Your task to perform on an android device: change notification settings in the gmail app Image 0: 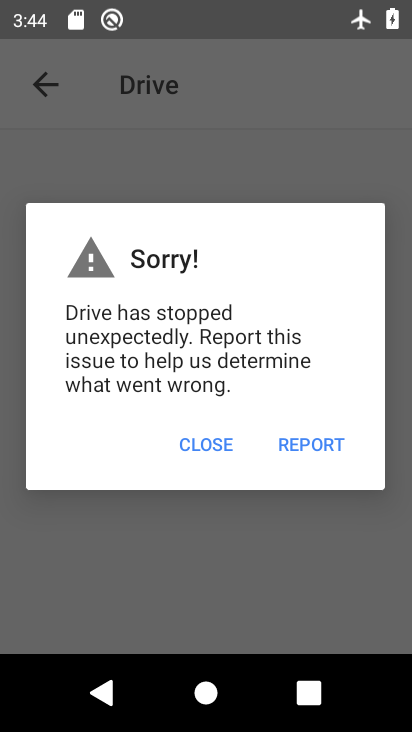
Step 0: press home button
Your task to perform on an android device: change notification settings in the gmail app Image 1: 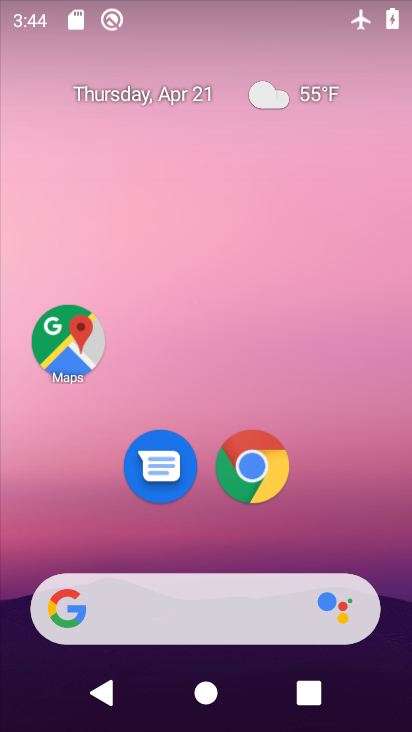
Step 1: drag from (255, 544) to (186, 146)
Your task to perform on an android device: change notification settings in the gmail app Image 2: 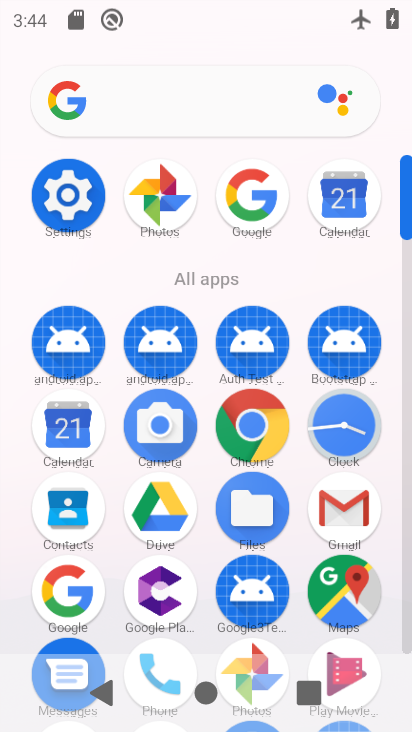
Step 2: click (352, 510)
Your task to perform on an android device: change notification settings in the gmail app Image 3: 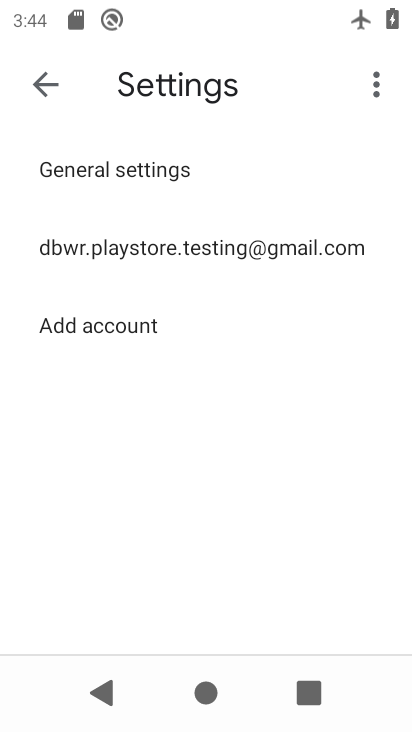
Step 3: click (144, 247)
Your task to perform on an android device: change notification settings in the gmail app Image 4: 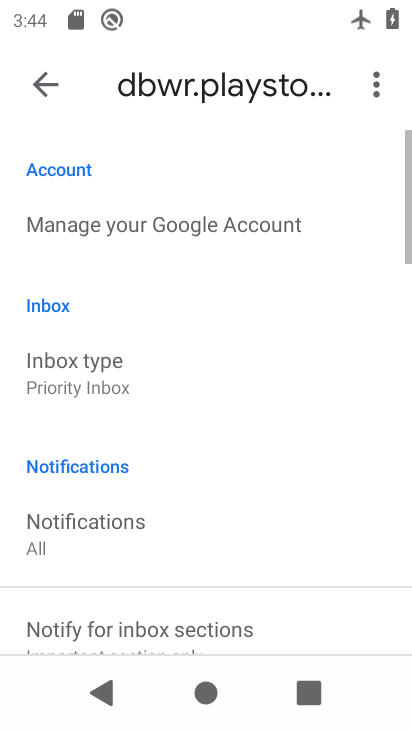
Step 4: click (137, 529)
Your task to perform on an android device: change notification settings in the gmail app Image 5: 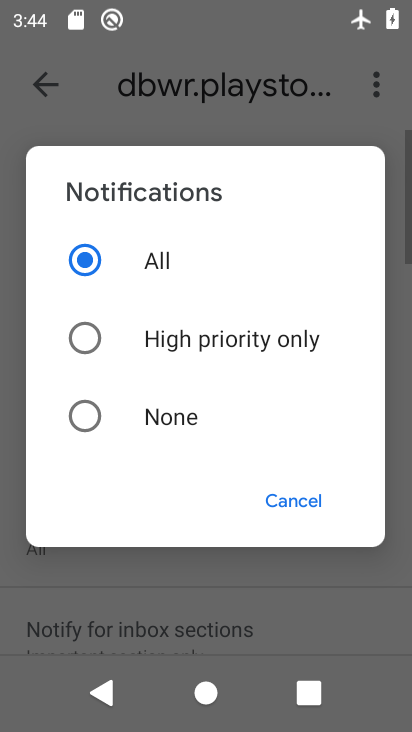
Step 5: click (198, 333)
Your task to perform on an android device: change notification settings in the gmail app Image 6: 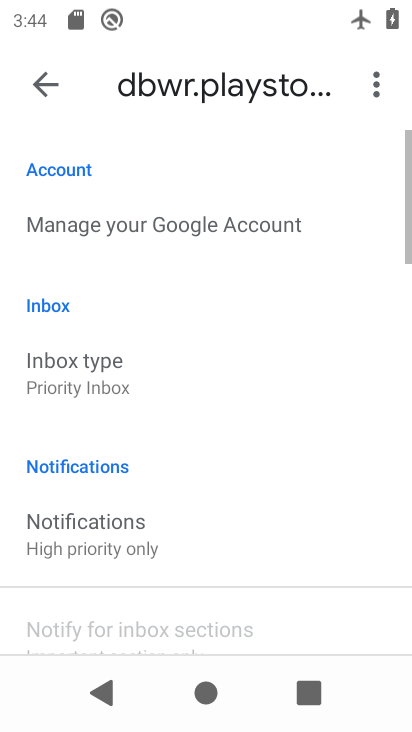
Step 6: task complete